Your task to perform on an android device: Go to privacy settings Image 0: 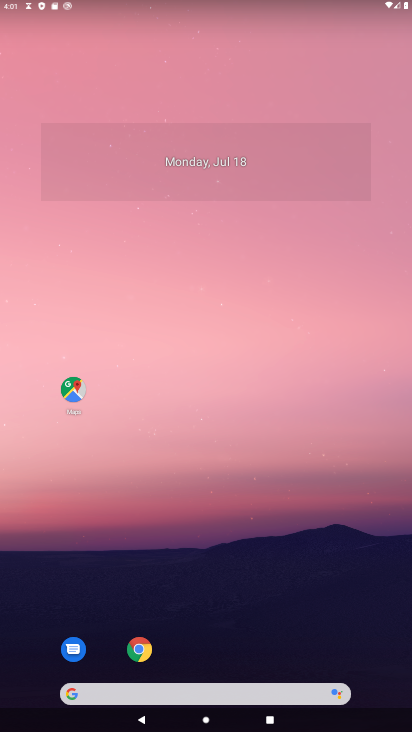
Step 0: press home button
Your task to perform on an android device: Go to privacy settings Image 1: 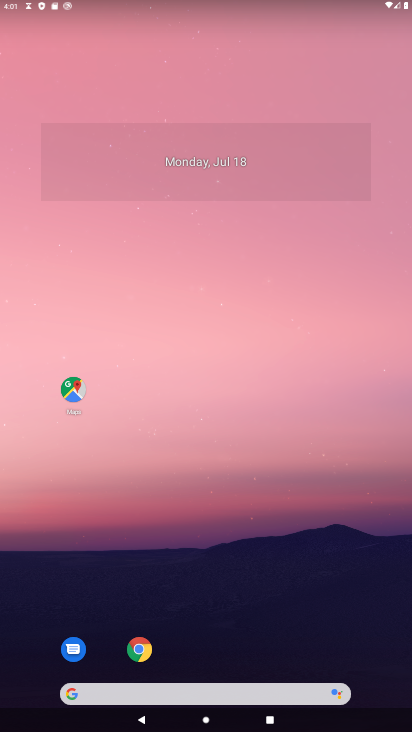
Step 1: drag from (273, 647) to (366, 168)
Your task to perform on an android device: Go to privacy settings Image 2: 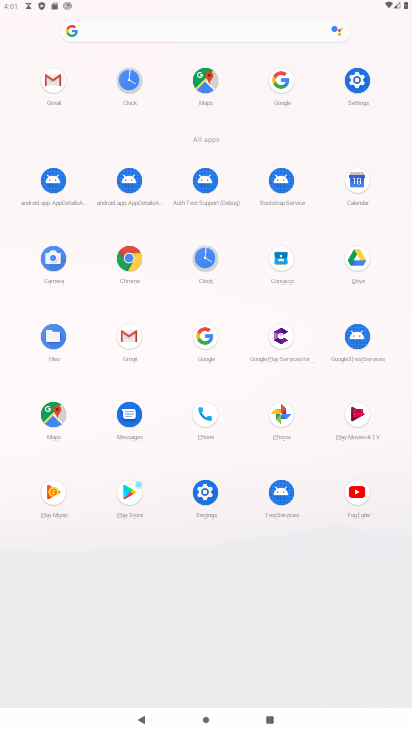
Step 2: click (346, 75)
Your task to perform on an android device: Go to privacy settings Image 3: 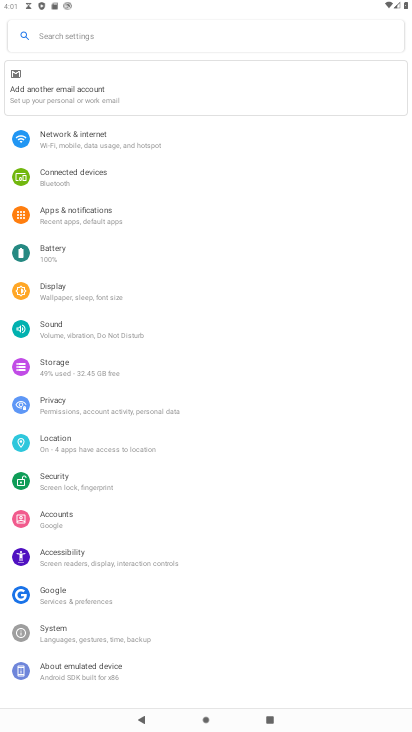
Step 3: click (76, 394)
Your task to perform on an android device: Go to privacy settings Image 4: 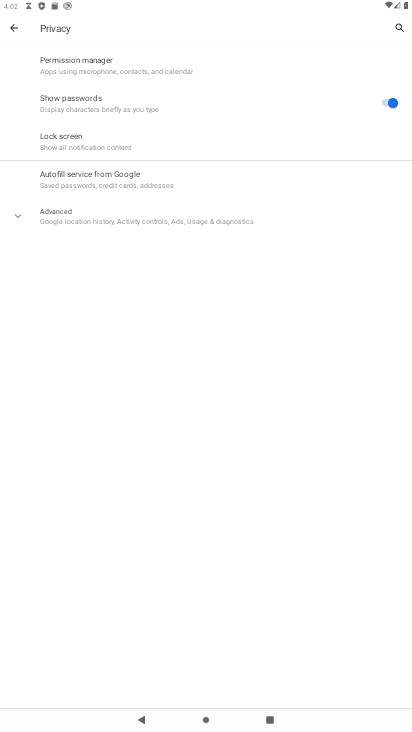
Step 4: task complete